Your task to perform on an android device: open wifi settings Image 0: 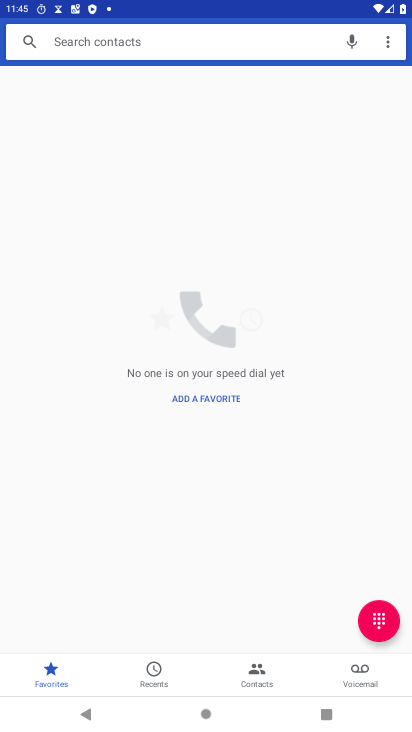
Step 0: press home button
Your task to perform on an android device: open wifi settings Image 1: 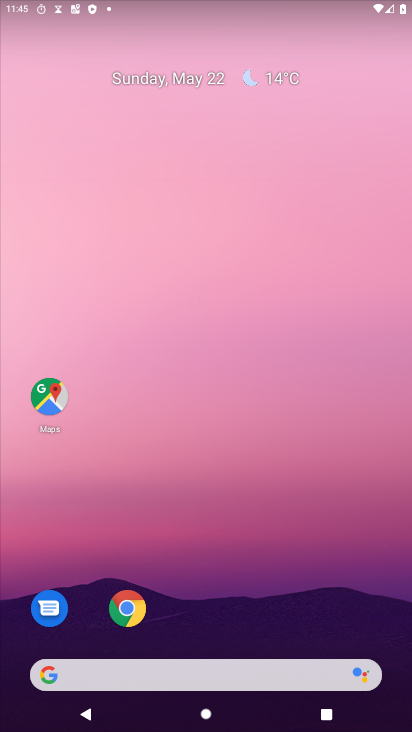
Step 1: drag from (224, 715) to (175, 31)
Your task to perform on an android device: open wifi settings Image 2: 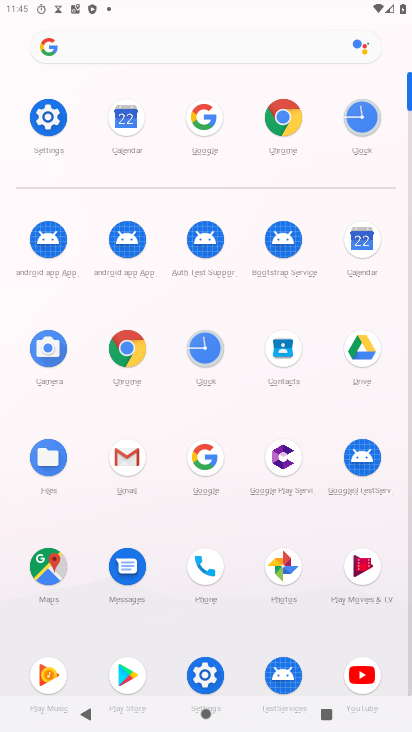
Step 2: click (38, 118)
Your task to perform on an android device: open wifi settings Image 3: 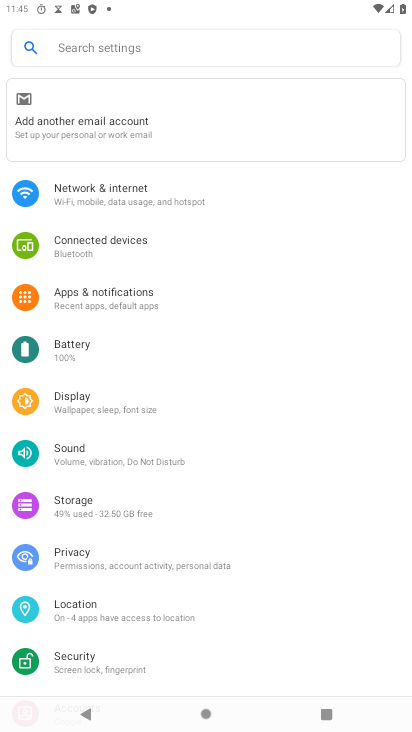
Step 3: click (105, 191)
Your task to perform on an android device: open wifi settings Image 4: 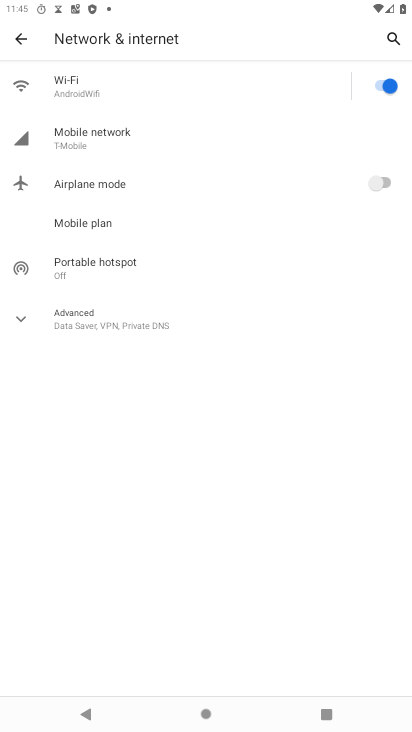
Step 4: click (72, 87)
Your task to perform on an android device: open wifi settings Image 5: 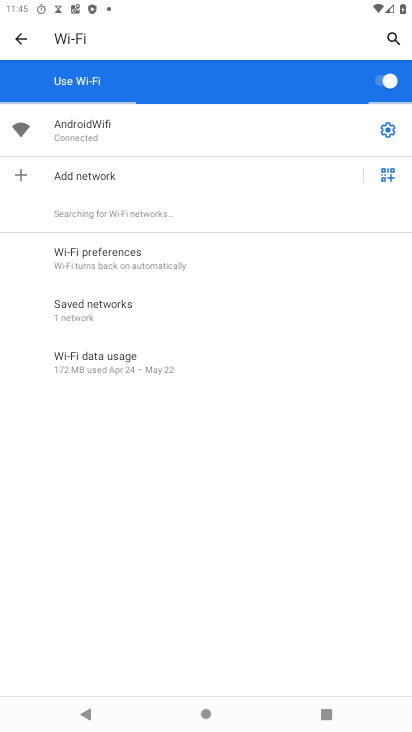
Step 5: task complete